Your task to perform on an android device: Go to privacy settings Image 0: 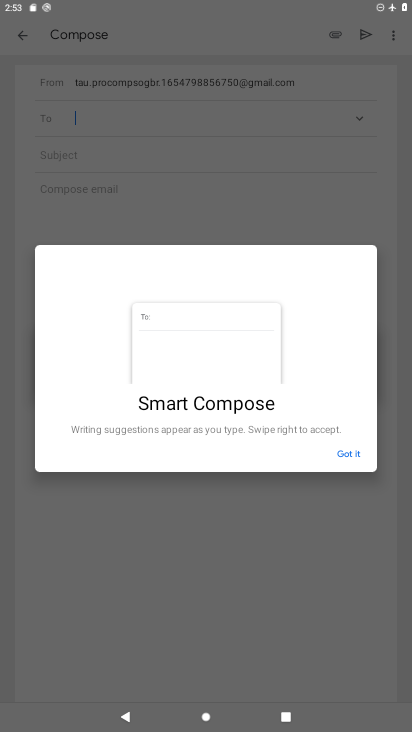
Step 0: press home button
Your task to perform on an android device: Go to privacy settings Image 1: 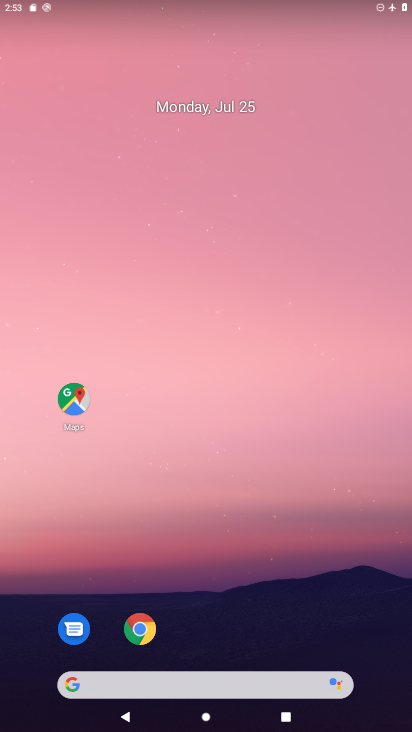
Step 1: drag from (256, 578) to (325, 48)
Your task to perform on an android device: Go to privacy settings Image 2: 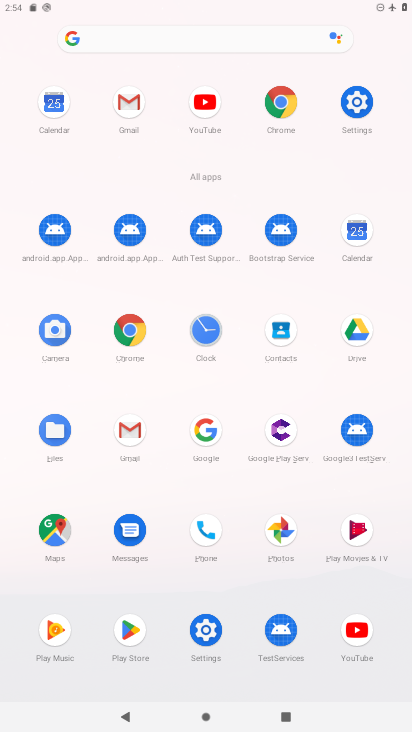
Step 2: click (200, 621)
Your task to perform on an android device: Go to privacy settings Image 3: 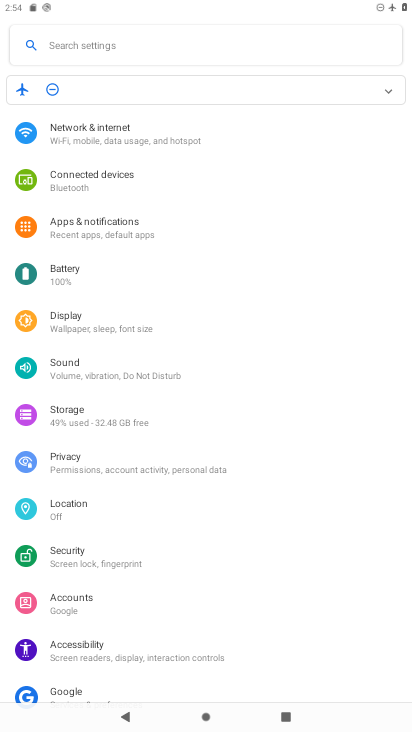
Step 3: click (108, 462)
Your task to perform on an android device: Go to privacy settings Image 4: 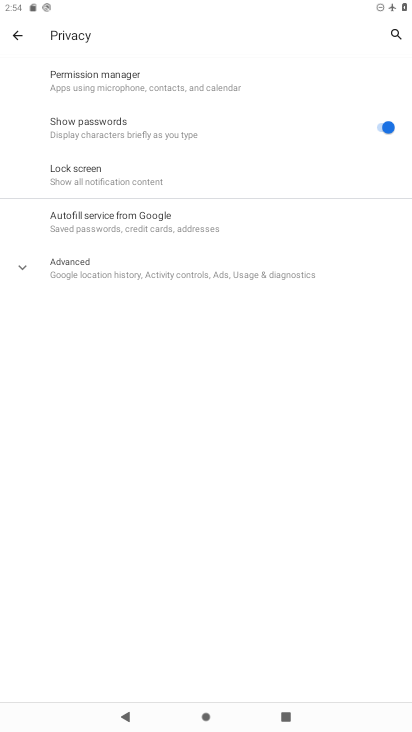
Step 4: task complete